Your task to perform on an android device: check battery use Image 0: 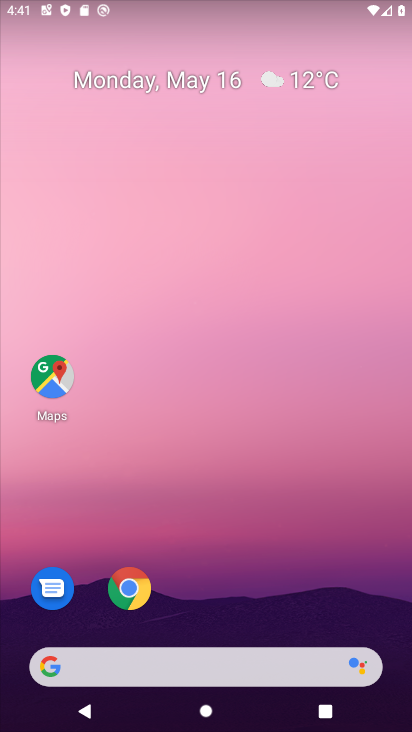
Step 0: drag from (175, 605) to (228, 70)
Your task to perform on an android device: check battery use Image 1: 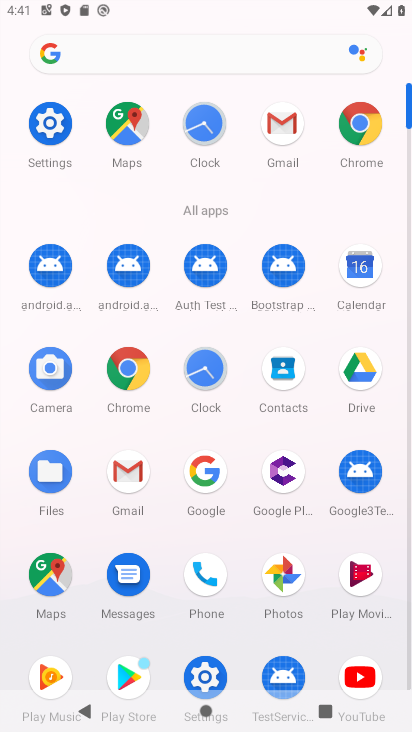
Step 1: click (53, 119)
Your task to perform on an android device: check battery use Image 2: 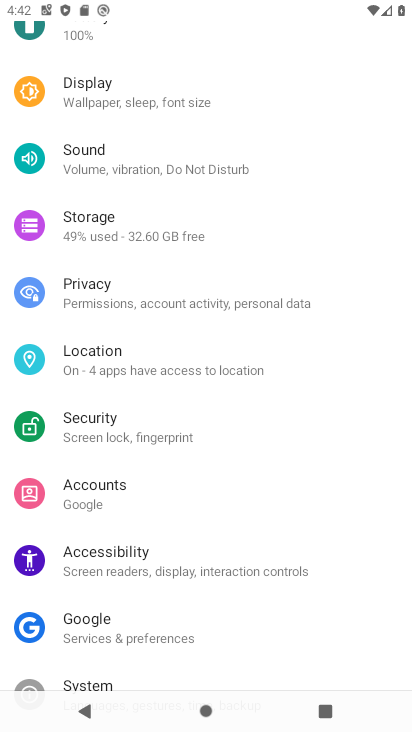
Step 2: drag from (174, 199) to (176, 603)
Your task to perform on an android device: check battery use Image 3: 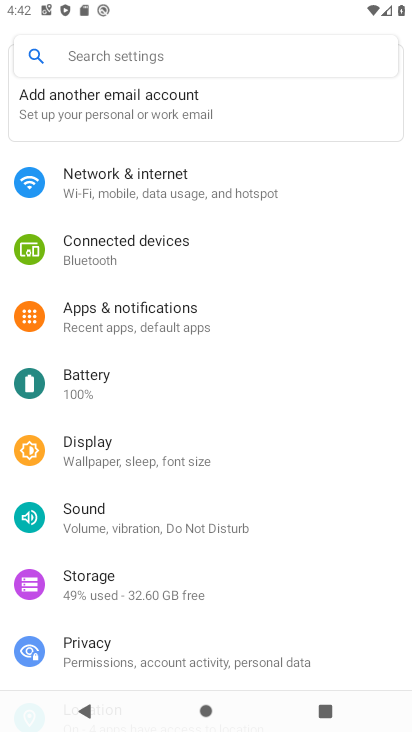
Step 3: click (98, 381)
Your task to perform on an android device: check battery use Image 4: 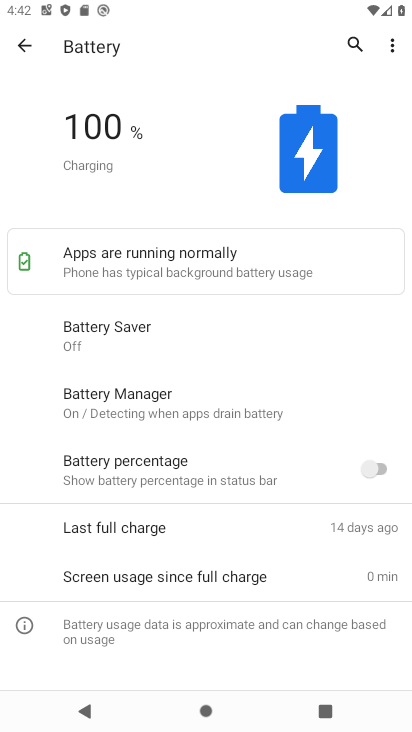
Step 4: click (391, 40)
Your task to perform on an android device: check battery use Image 5: 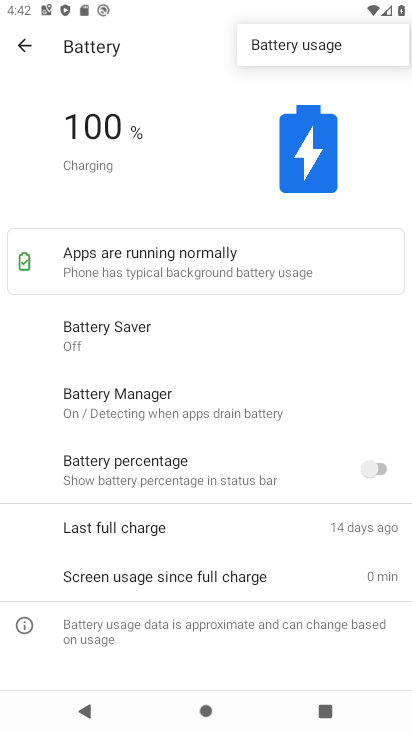
Step 5: click (320, 50)
Your task to perform on an android device: check battery use Image 6: 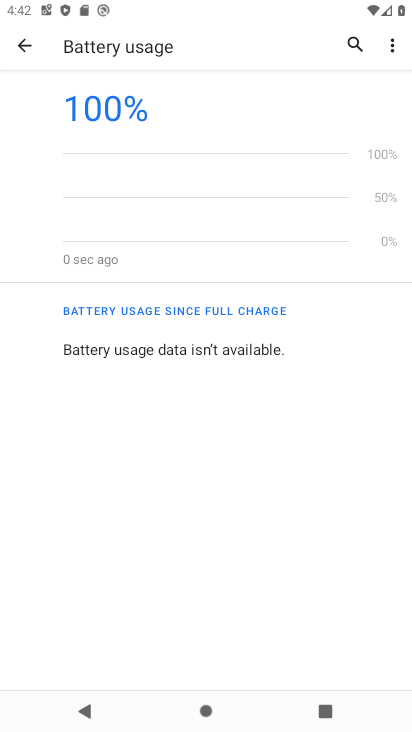
Step 6: task complete